Your task to perform on an android device: Go to sound settings Image 0: 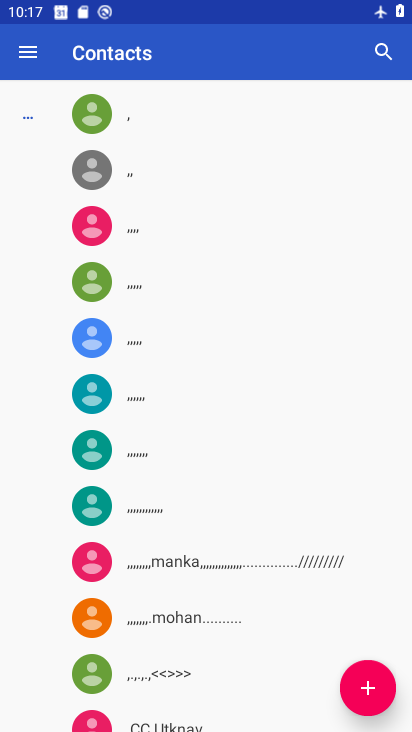
Step 0: drag from (180, 613) to (215, 262)
Your task to perform on an android device: Go to sound settings Image 1: 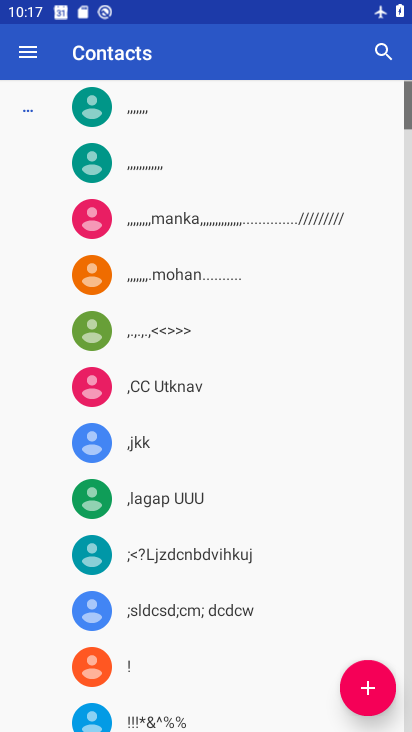
Step 1: press home button
Your task to perform on an android device: Go to sound settings Image 2: 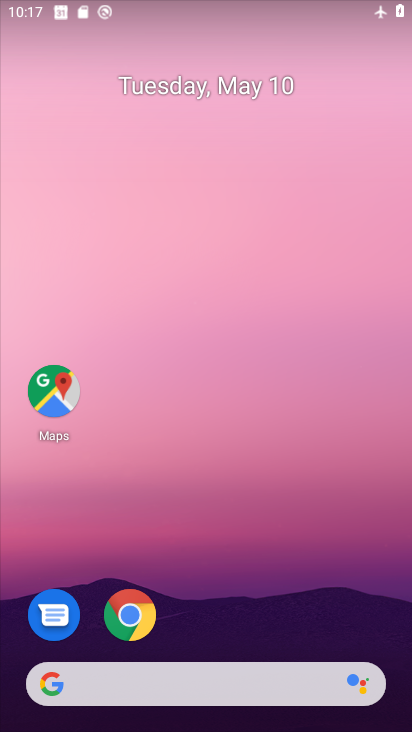
Step 2: drag from (213, 611) to (299, 230)
Your task to perform on an android device: Go to sound settings Image 3: 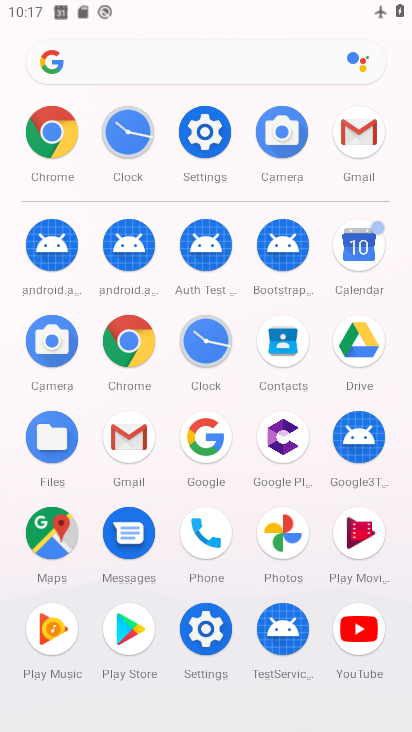
Step 3: click (210, 133)
Your task to perform on an android device: Go to sound settings Image 4: 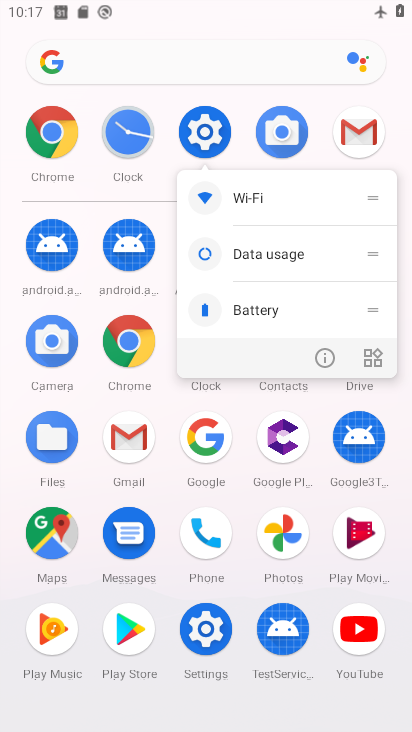
Step 4: click (316, 358)
Your task to perform on an android device: Go to sound settings Image 5: 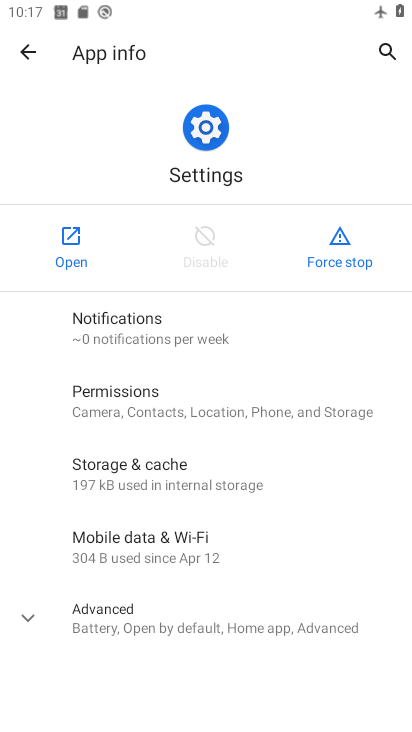
Step 5: click (53, 245)
Your task to perform on an android device: Go to sound settings Image 6: 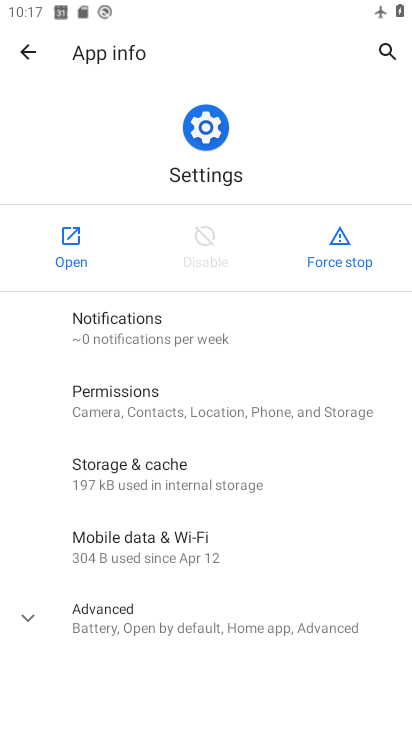
Step 6: click (53, 245)
Your task to perform on an android device: Go to sound settings Image 7: 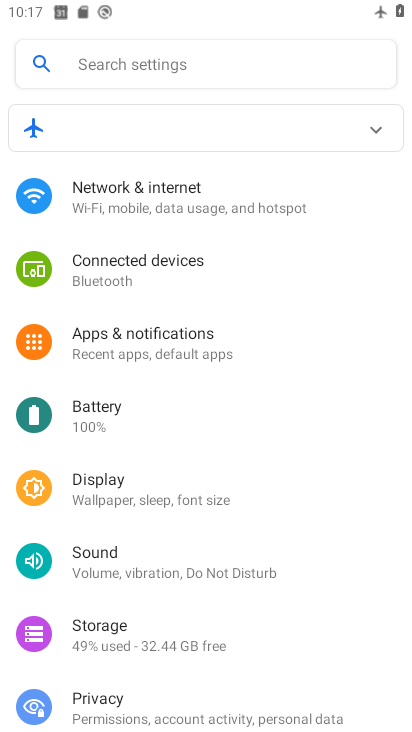
Step 7: drag from (235, 438) to (296, 185)
Your task to perform on an android device: Go to sound settings Image 8: 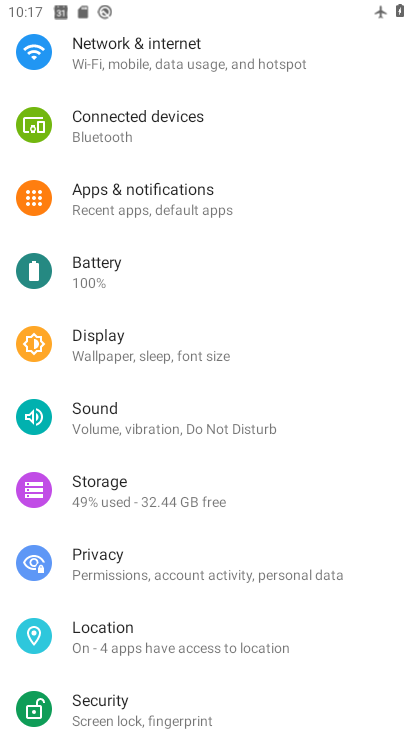
Step 8: click (124, 405)
Your task to perform on an android device: Go to sound settings Image 9: 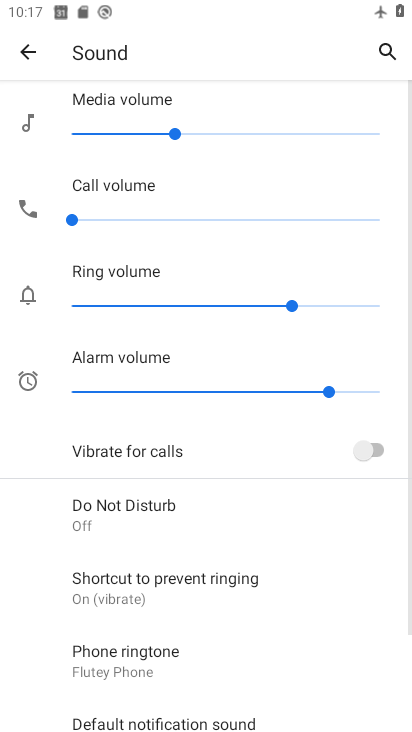
Step 9: task complete